Your task to perform on an android device: change text size in settings app Image 0: 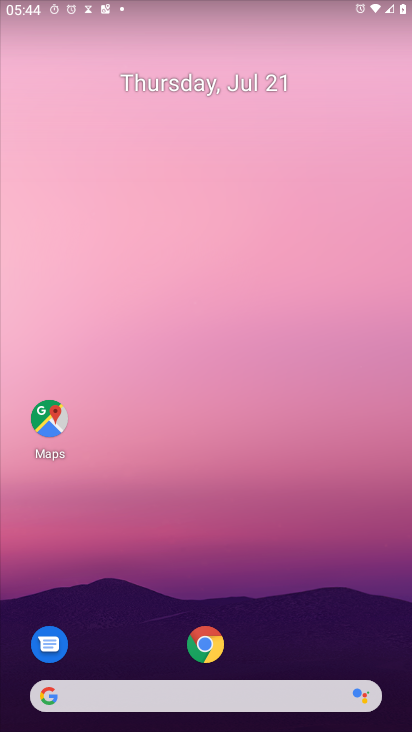
Step 0: drag from (281, 559) to (263, 292)
Your task to perform on an android device: change text size in settings app Image 1: 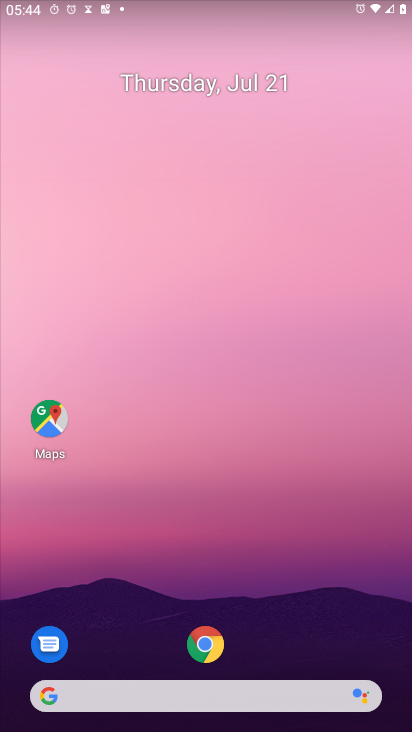
Step 1: drag from (277, 579) to (295, 151)
Your task to perform on an android device: change text size in settings app Image 2: 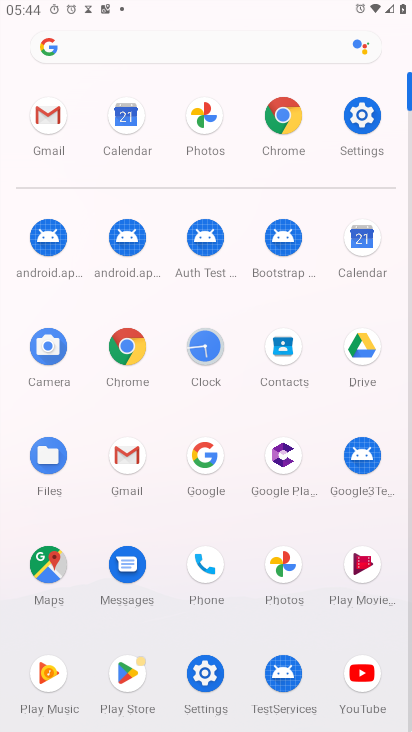
Step 2: click (358, 123)
Your task to perform on an android device: change text size in settings app Image 3: 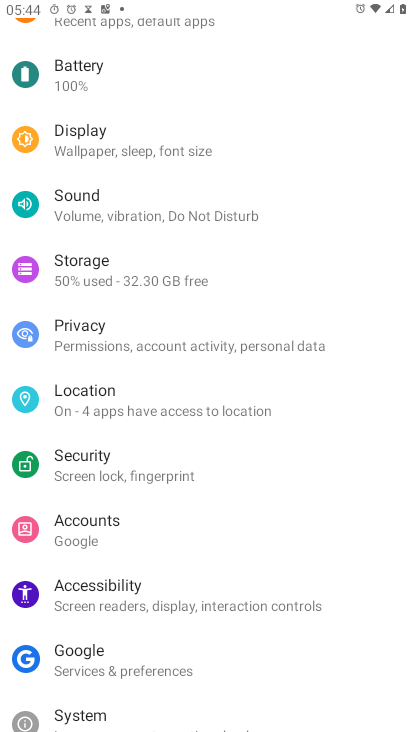
Step 3: drag from (120, 627) to (165, 208)
Your task to perform on an android device: change text size in settings app Image 4: 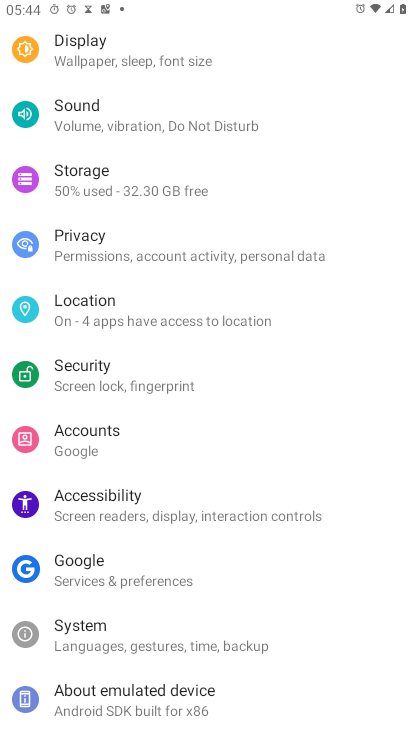
Step 4: click (114, 55)
Your task to perform on an android device: change text size in settings app Image 5: 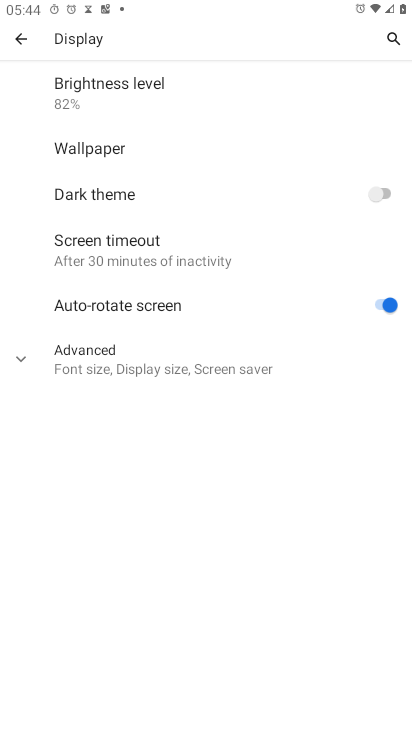
Step 5: click (37, 349)
Your task to perform on an android device: change text size in settings app Image 6: 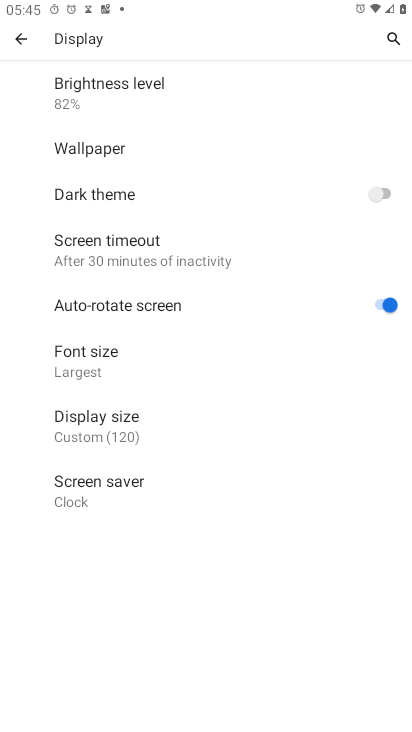
Step 6: click (101, 348)
Your task to perform on an android device: change text size in settings app Image 7: 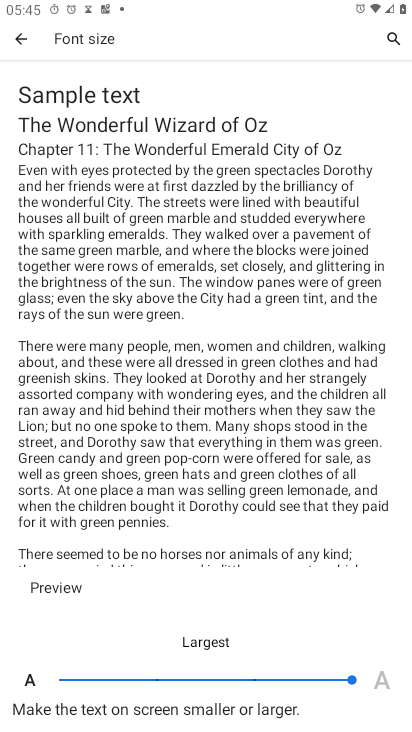
Step 7: click (287, 674)
Your task to perform on an android device: change text size in settings app Image 8: 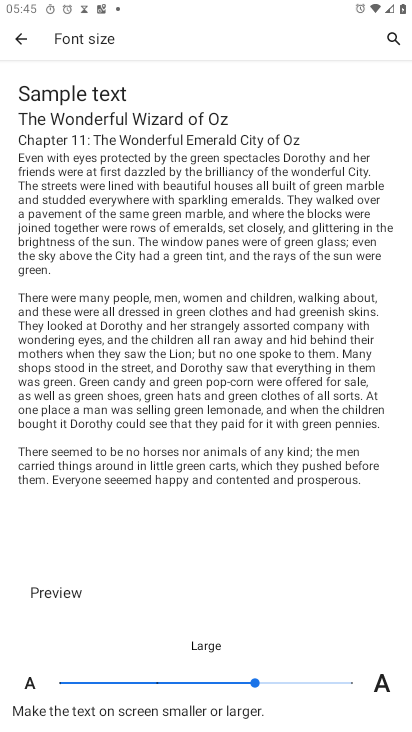
Step 8: task complete